Your task to perform on an android device: change alarm snooze length Image 0: 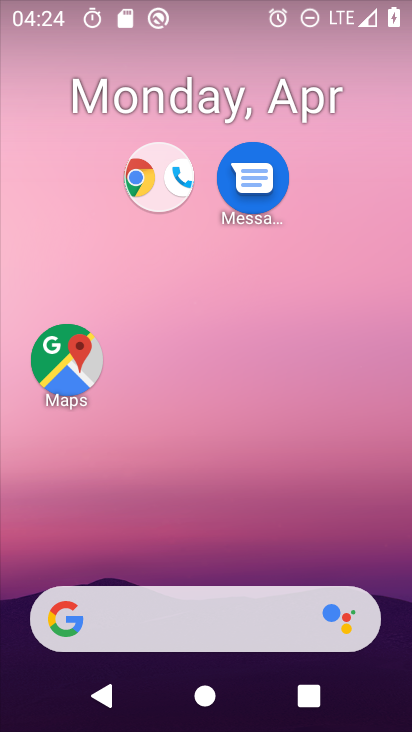
Step 0: task complete